Your task to perform on an android device: set the stopwatch Image 0: 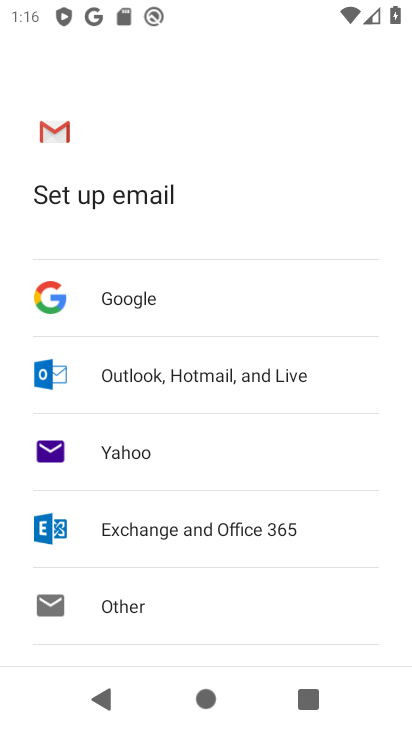
Step 0: press home button
Your task to perform on an android device: set the stopwatch Image 1: 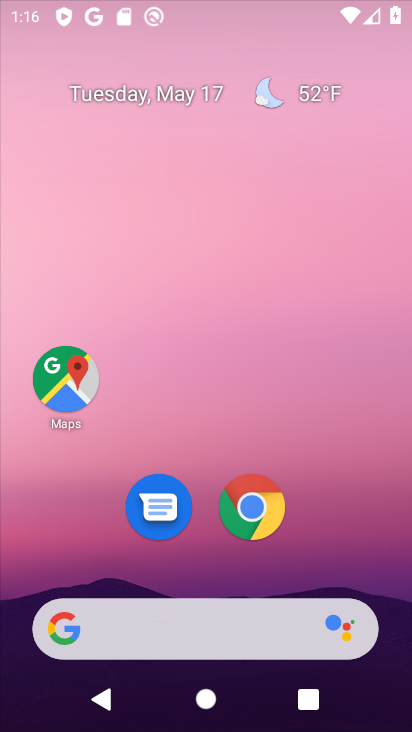
Step 1: drag from (204, 539) to (198, 141)
Your task to perform on an android device: set the stopwatch Image 2: 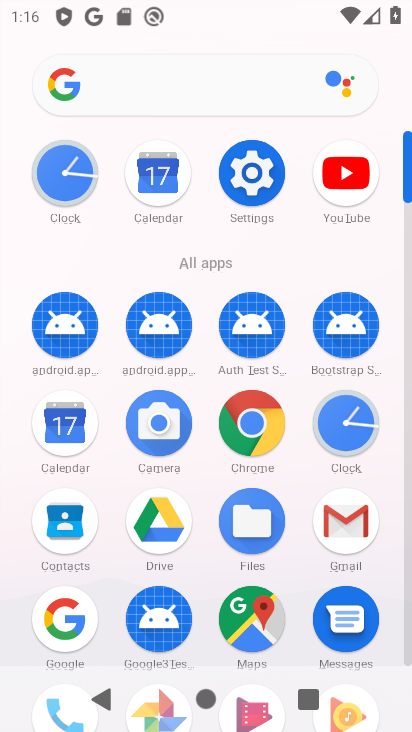
Step 2: click (342, 420)
Your task to perform on an android device: set the stopwatch Image 3: 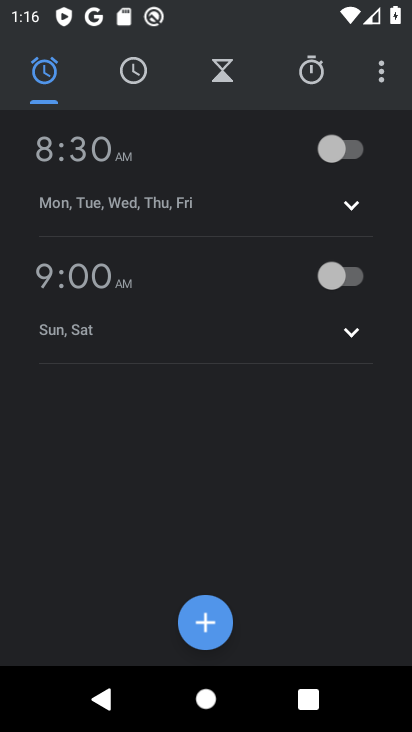
Step 3: click (309, 70)
Your task to perform on an android device: set the stopwatch Image 4: 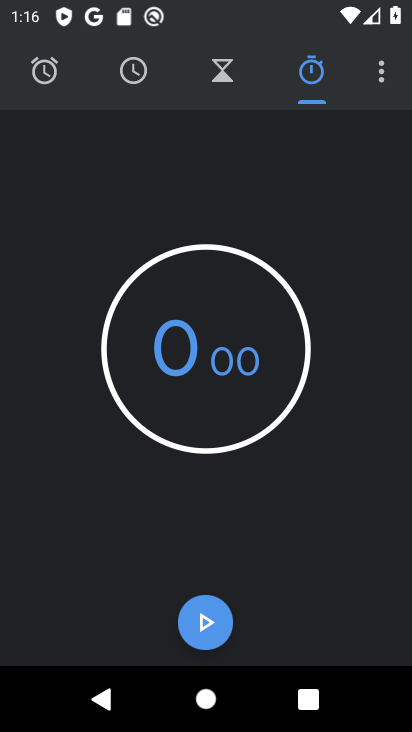
Step 4: click (203, 617)
Your task to perform on an android device: set the stopwatch Image 5: 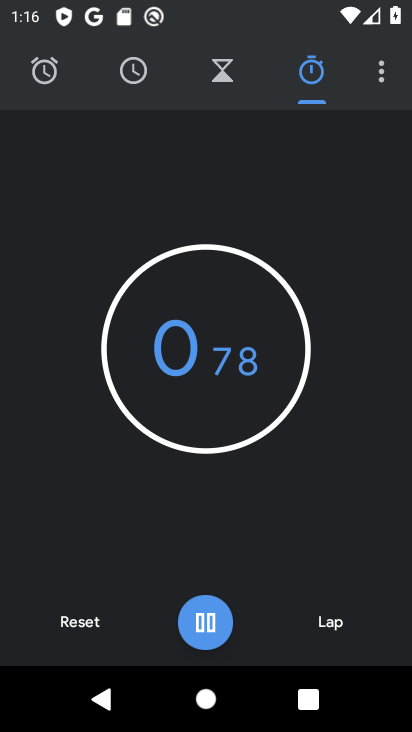
Step 5: click (203, 619)
Your task to perform on an android device: set the stopwatch Image 6: 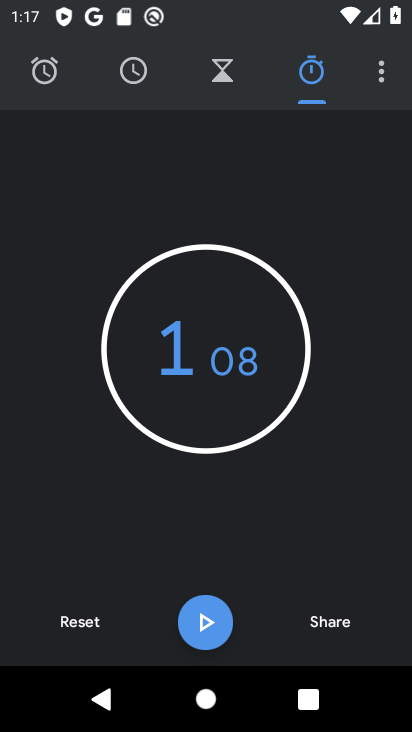
Step 6: task complete